Your task to perform on an android device: open app "Viber Messenger" (install if not already installed) Image 0: 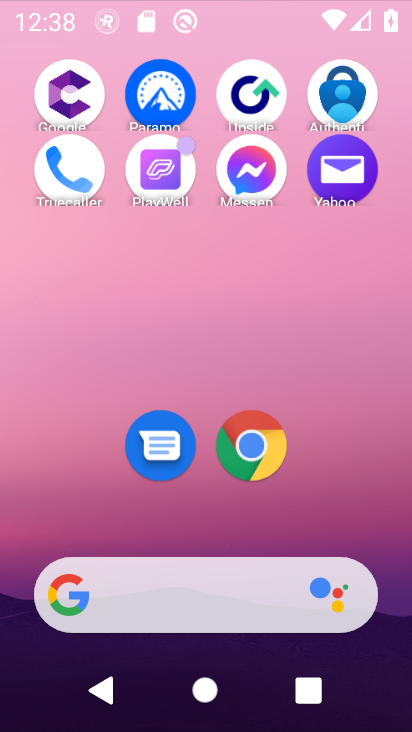
Step 0: press home button
Your task to perform on an android device: open app "Viber Messenger" (install if not already installed) Image 1: 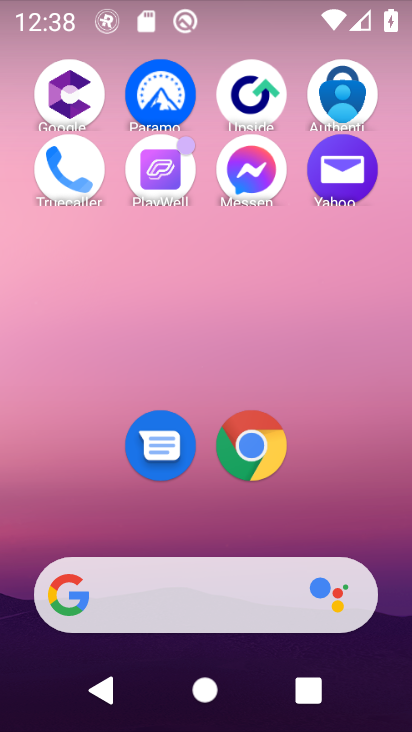
Step 1: press home button
Your task to perform on an android device: open app "Viber Messenger" (install if not already installed) Image 2: 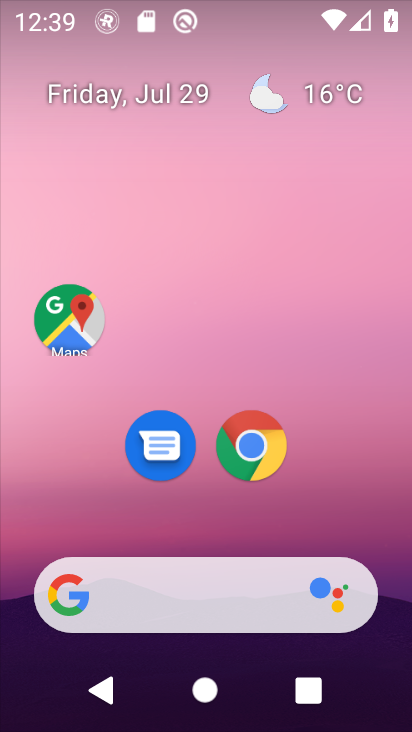
Step 2: drag from (266, 476) to (361, 3)
Your task to perform on an android device: open app "Viber Messenger" (install if not already installed) Image 3: 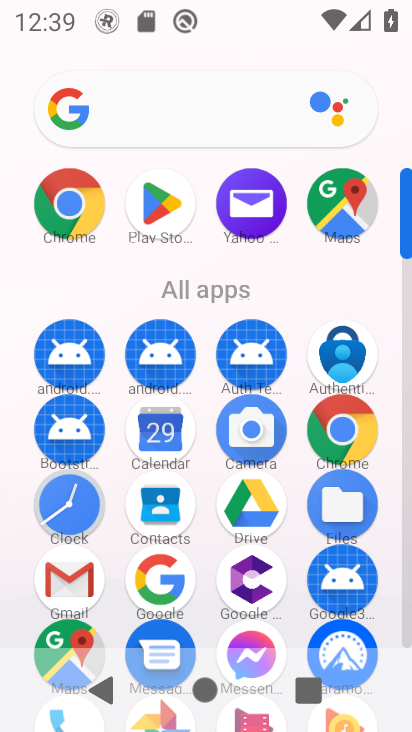
Step 3: click (174, 231)
Your task to perform on an android device: open app "Viber Messenger" (install if not already installed) Image 4: 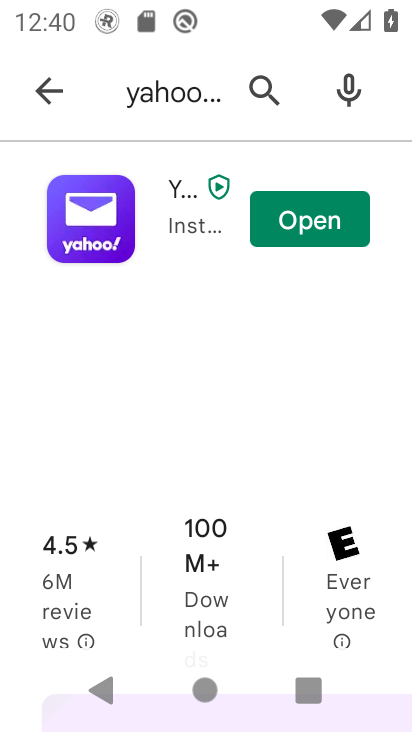
Step 4: click (275, 91)
Your task to perform on an android device: open app "Viber Messenger" (install if not already installed) Image 5: 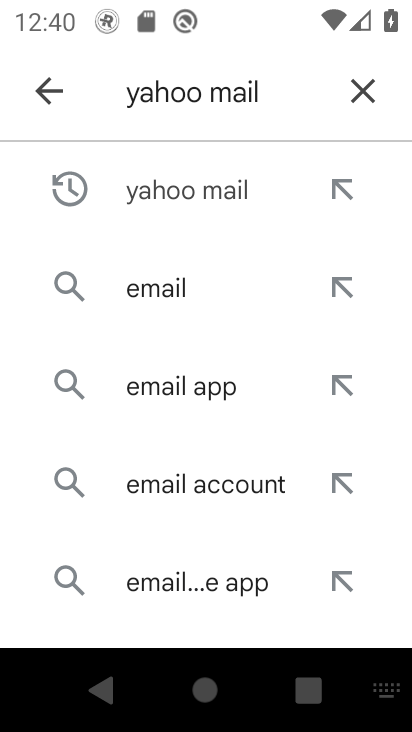
Step 5: click (363, 99)
Your task to perform on an android device: open app "Viber Messenger" (install if not already installed) Image 6: 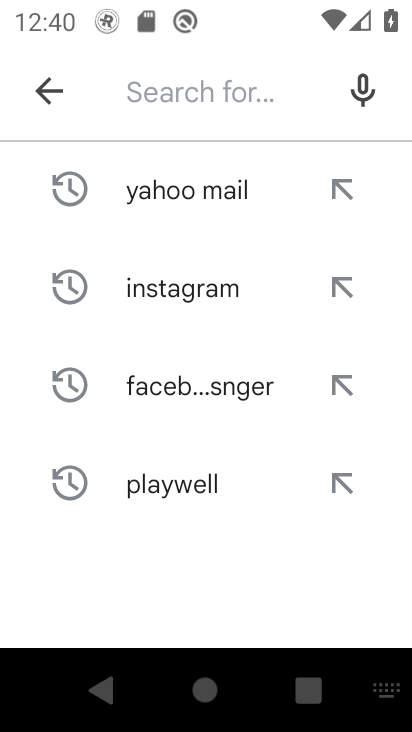
Step 6: type "Viber Messenger"
Your task to perform on an android device: open app "Viber Messenger" (install if not already installed) Image 7: 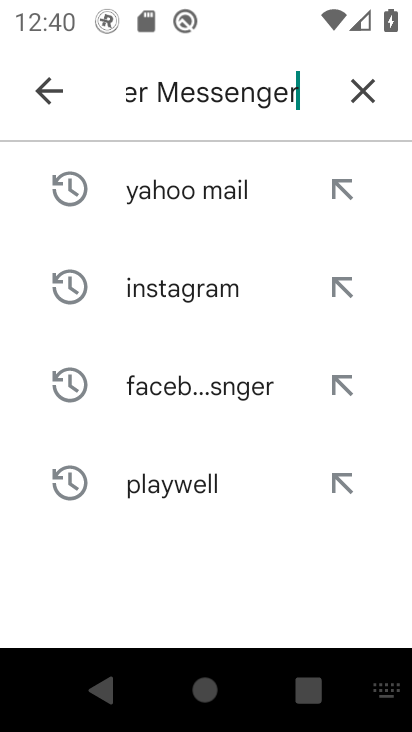
Step 7: type ""
Your task to perform on an android device: open app "Viber Messenger" (install if not already installed) Image 8: 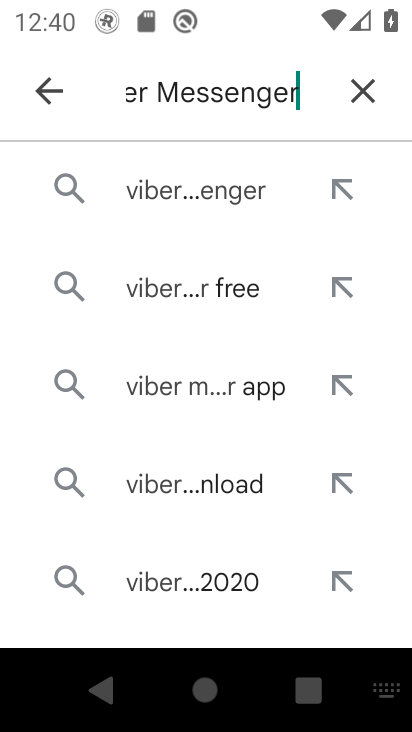
Step 8: click (194, 188)
Your task to perform on an android device: open app "Viber Messenger" (install if not already installed) Image 9: 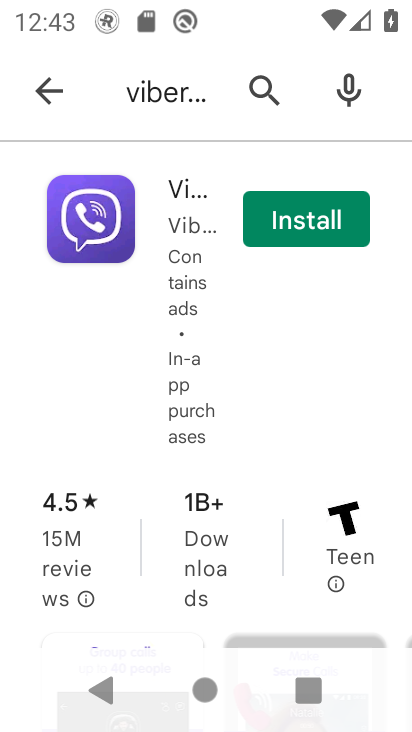
Step 9: click (285, 194)
Your task to perform on an android device: open app "Viber Messenger" (install if not already installed) Image 10: 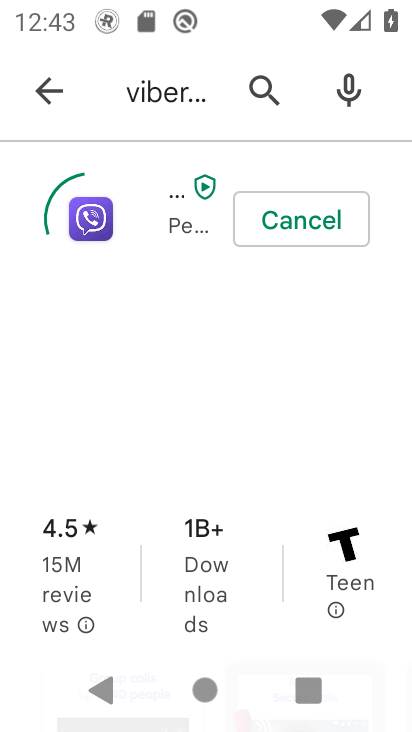
Step 10: click (161, 206)
Your task to perform on an android device: open app "Viber Messenger" (install if not already installed) Image 11: 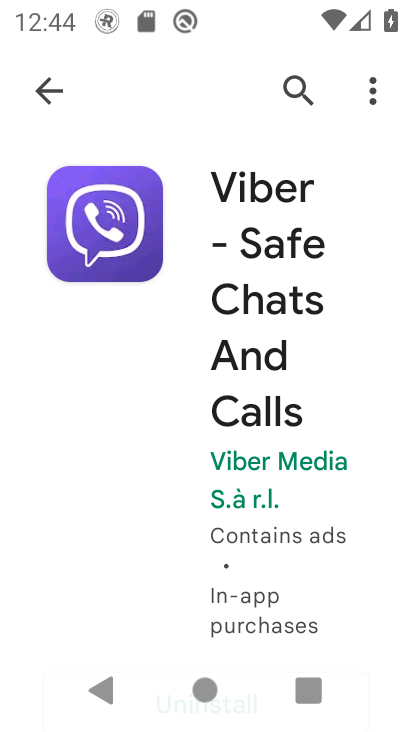
Step 11: drag from (219, 559) to (278, 60)
Your task to perform on an android device: open app "Viber Messenger" (install if not already installed) Image 12: 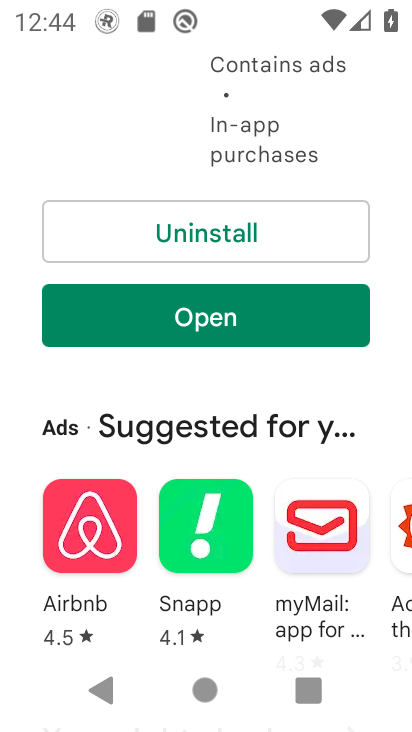
Step 12: click (200, 321)
Your task to perform on an android device: open app "Viber Messenger" (install if not already installed) Image 13: 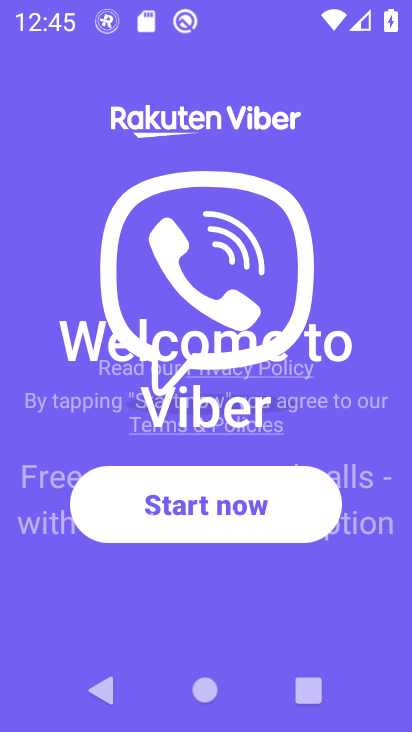
Step 13: task complete